Your task to perform on an android device: Is it going to rain today? Image 0: 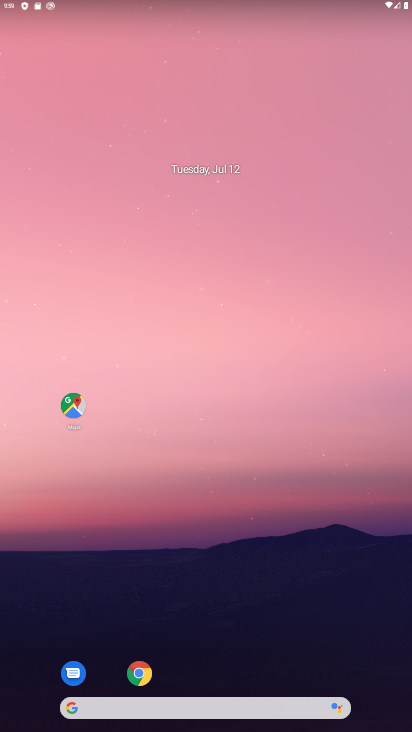
Step 0: drag from (258, 624) to (269, 39)
Your task to perform on an android device: Is it going to rain today? Image 1: 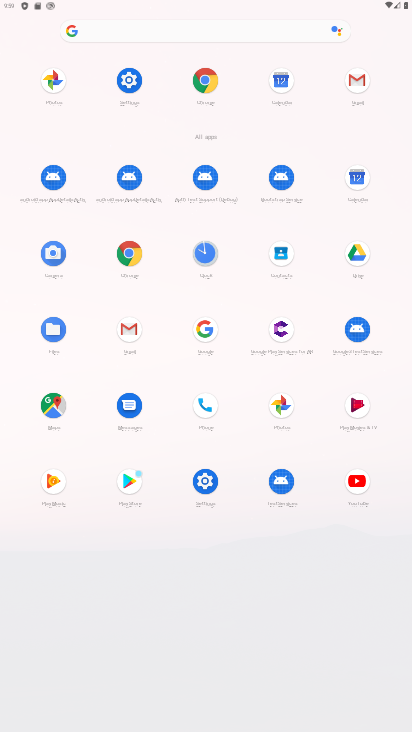
Step 1: click (207, 80)
Your task to perform on an android device: Is it going to rain today? Image 2: 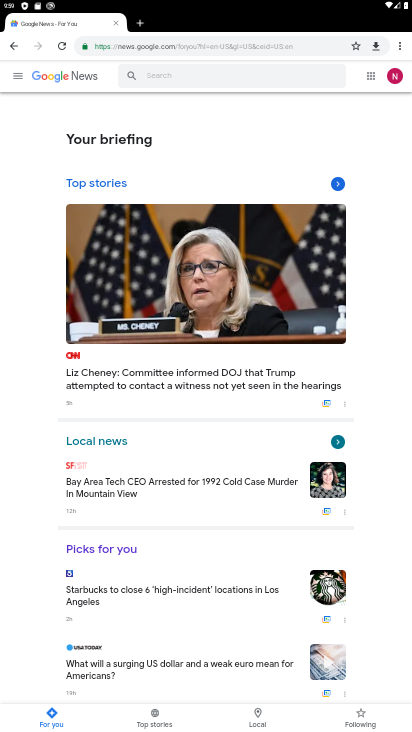
Step 2: click (210, 73)
Your task to perform on an android device: Is it going to rain today? Image 3: 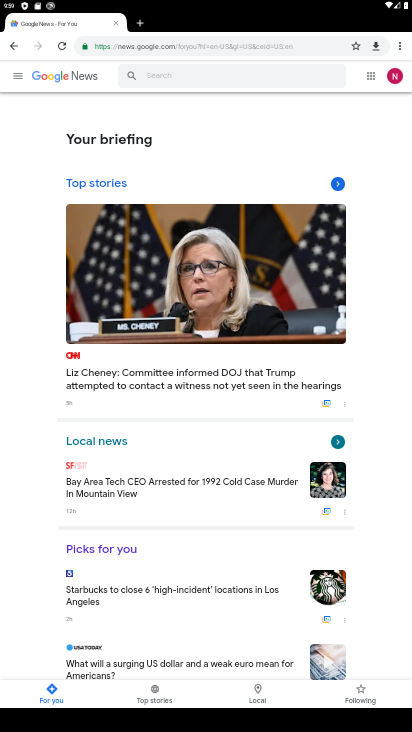
Step 3: click (211, 42)
Your task to perform on an android device: Is it going to rain today? Image 4: 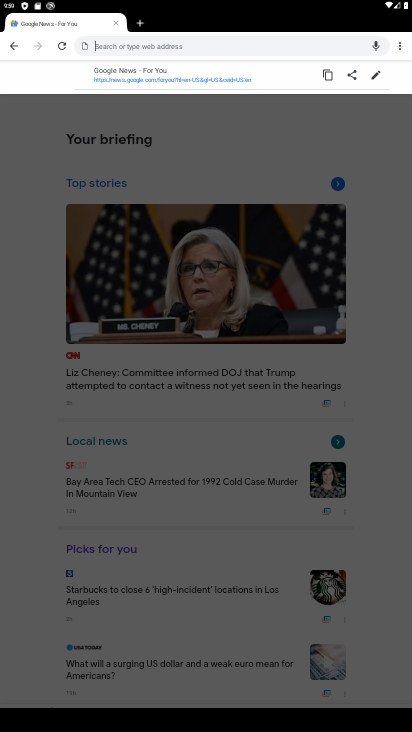
Step 4: type "weather"
Your task to perform on an android device: Is it going to rain today? Image 5: 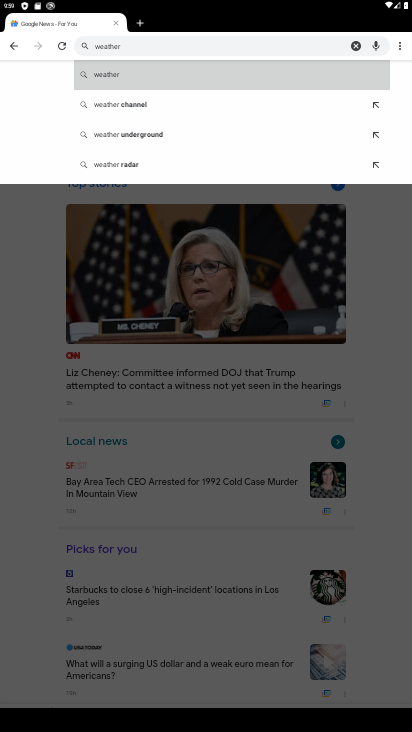
Step 5: click (108, 72)
Your task to perform on an android device: Is it going to rain today? Image 6: 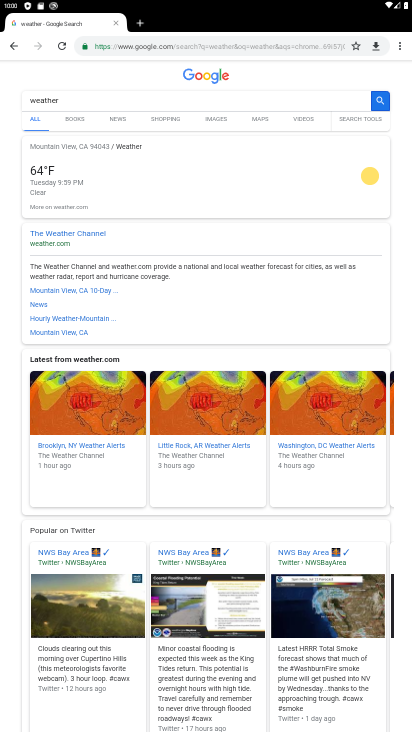
Step 6: task complete